Your task to perform on an android device: Open the web browser Image 0: 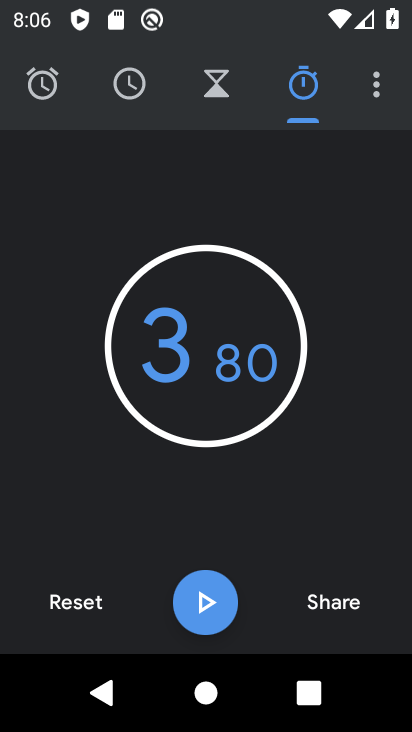
Step 0: press back button
Your task to perform on an android device: Open the web browser Image 1: 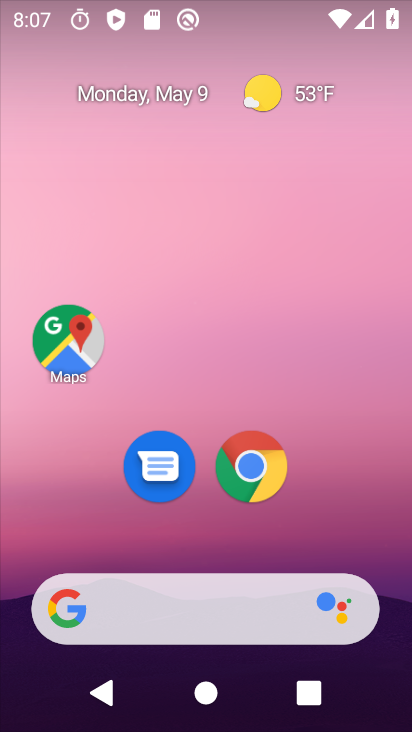
Step 1: click (252, 463)
Your task to perform on an android device: Open the web browser Image 2: 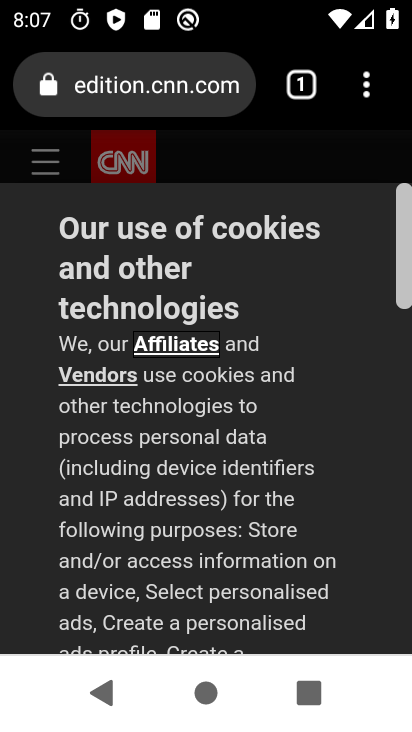
Step 2: task complete